Your task to perform on an android device: Set the phone to "Do not disturb". Image 0: 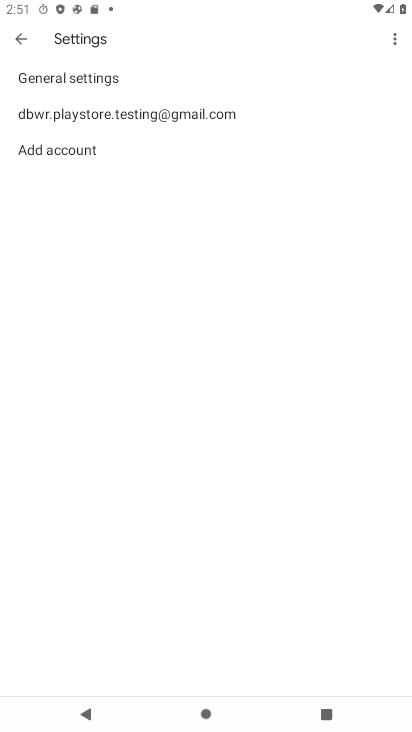
Step 0: press home button
Your task to perform on an android device: Set the phone to "Do not disturb". Image 1: 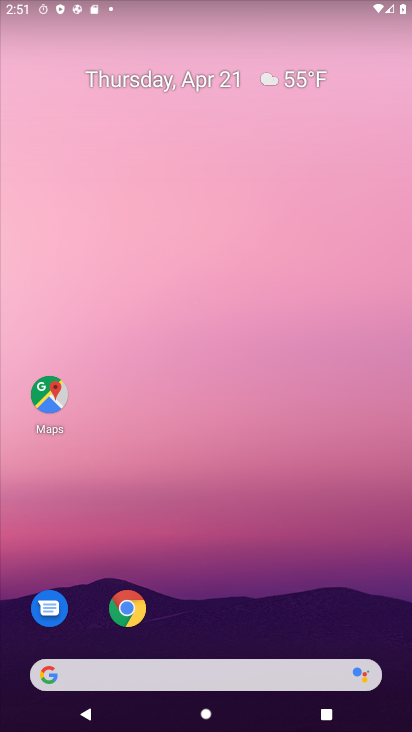
Step 1: drag from (227, 612) to (205, 104)
Your task to perform on an android device: Set the phone to "Do not disturb". Image 2: 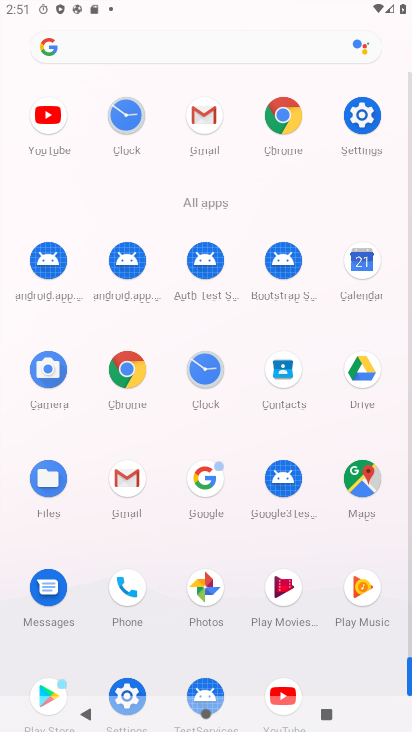
Step 2: click (357, 115)
Your task to perform on an android device: Set the phone to "Do not disturb". Image 3: 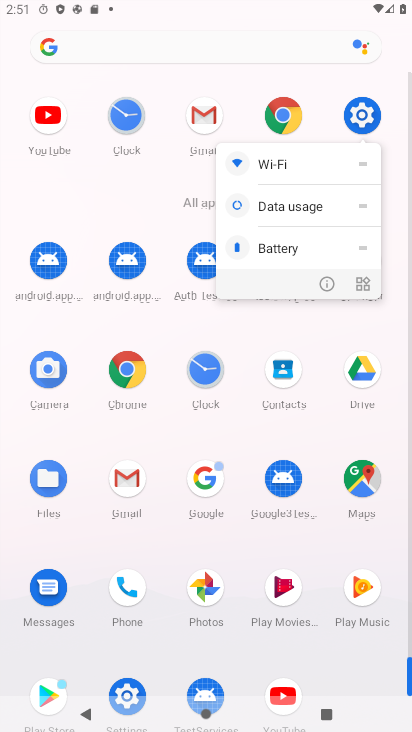
Step 3: click (357, 114)
Your task to perform on an android device: Set the phone to "Do not disturb". Image 4: 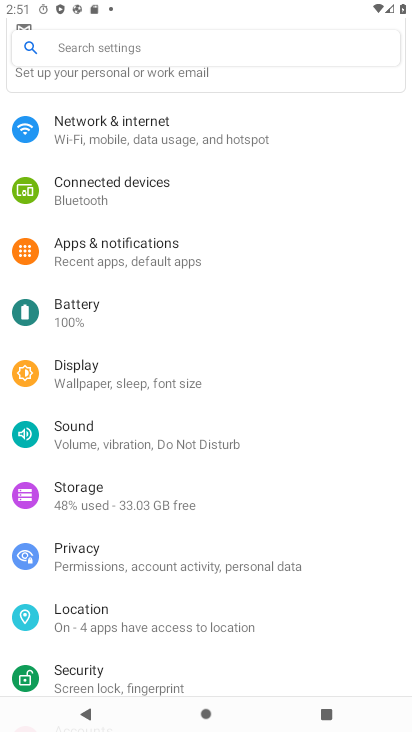
Step 4: click (166, 424)
Your task to perform on an android device: Set the phone to "Do not disturb". Image 5: 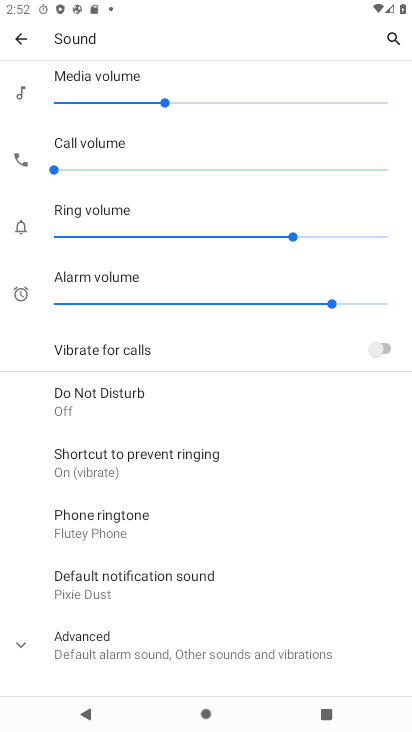
Step 5: click (86, 398)
Your task to perform on an android device: Set the phone to "Do not disturb". Image 6: 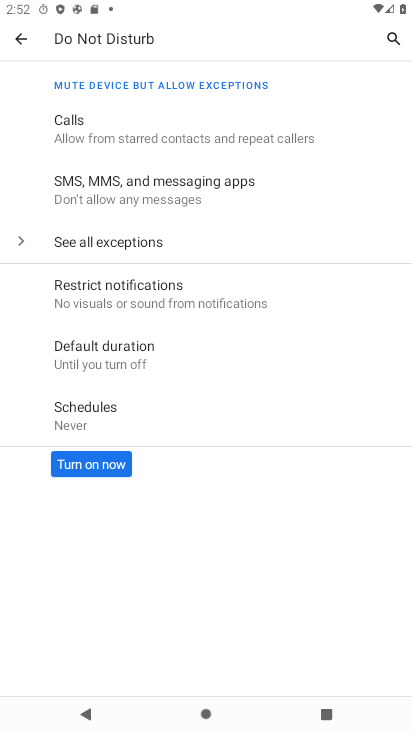
Step 6: click (66, 474)
Your task to perform on an android device: Set the phone to "Do not disturb". Image 7: 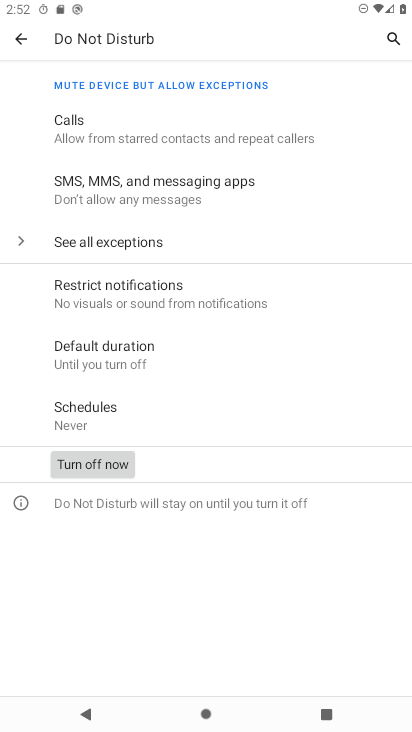
Step 7: task complete